Your task to perform on an android device: Show me the alarms in the clock app Image 0: 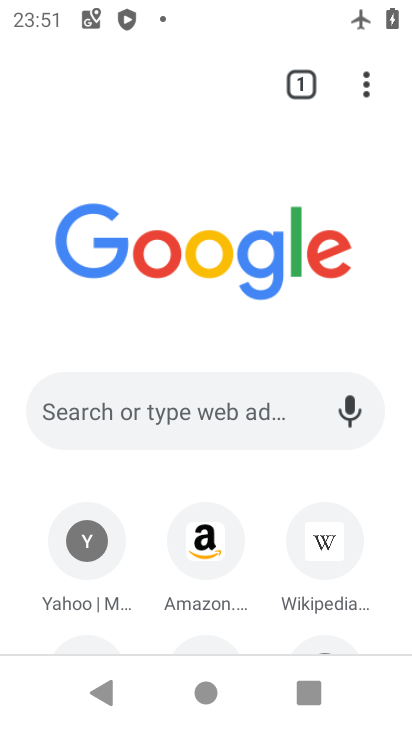
Step 0: press home button
Your task to perform on an android device: Show me the alarms in the clock app Image 1: 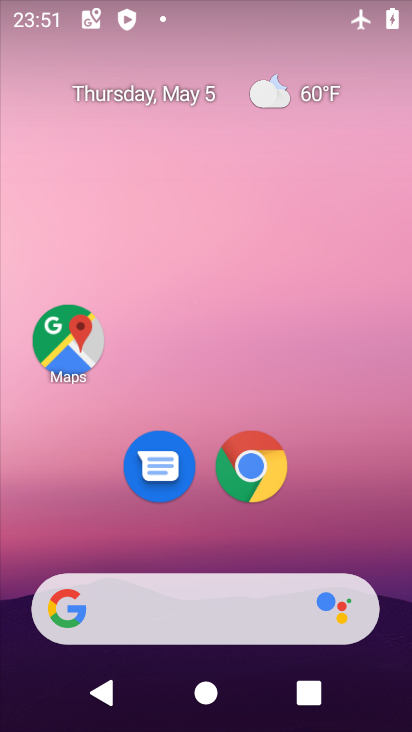
Step 1: drag from (218, 572) to (254, 292)
Your task to perform on an android device: Show me the alarms in the clock app Image 2: 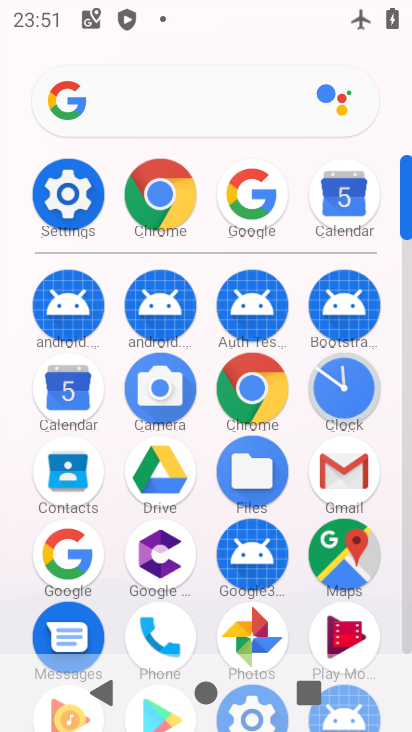
Step 2: click (352, 411)
Your task to perform on an android device: Show me the alarms in the clock app Image 3: 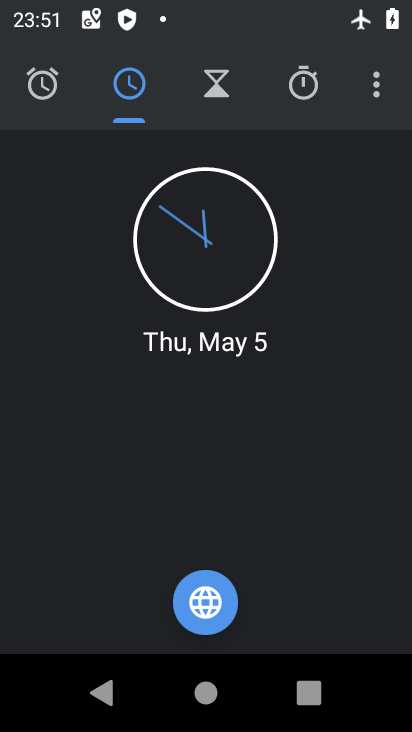
Step 3: click (41, 85)
Your task to perform on an android device: Show me the alarms in the clock app Image 4: 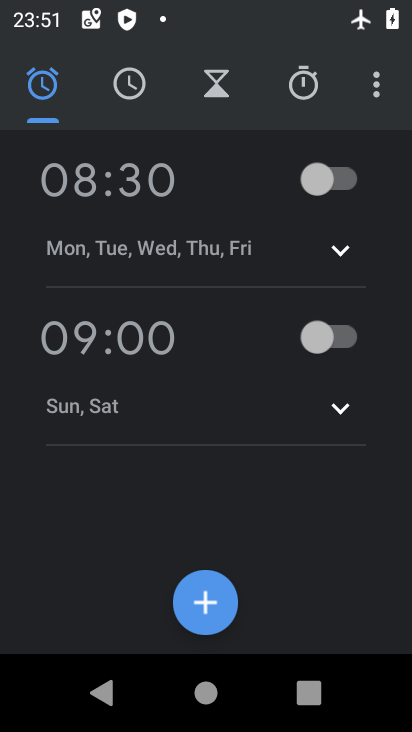
Step 4: task complete